Your task to perform on an android device: change text size in settings app Image 0: 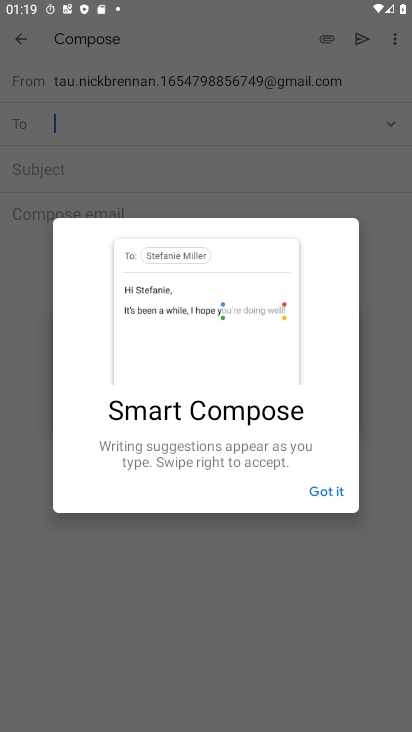
Step 0: press home button
Your task to perform on an android device: change text size in settings app Image 1: 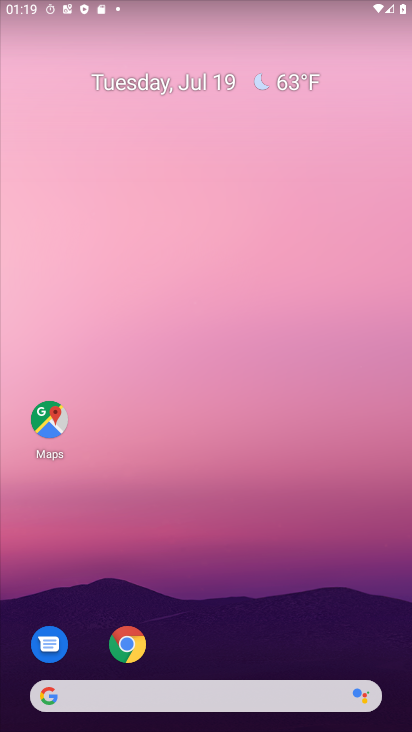
Step 1: drag from (206, 720) to (197, 271)
Your task to perform on an android device: change text size in settings app Image 2: 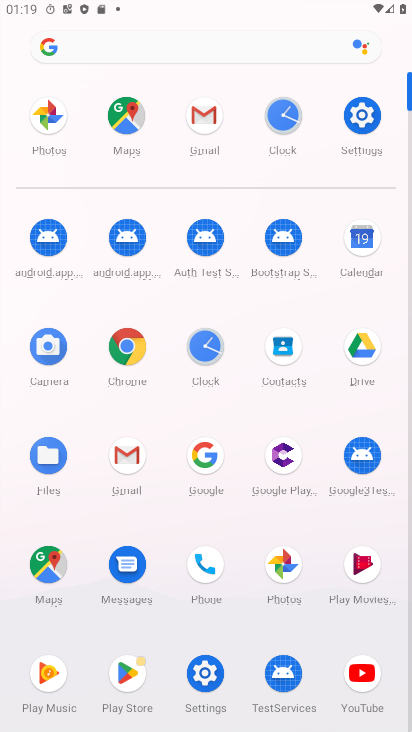
Step 2: click (361, 112)
Your task to perform on an android device: change text size in settings app Image 3: 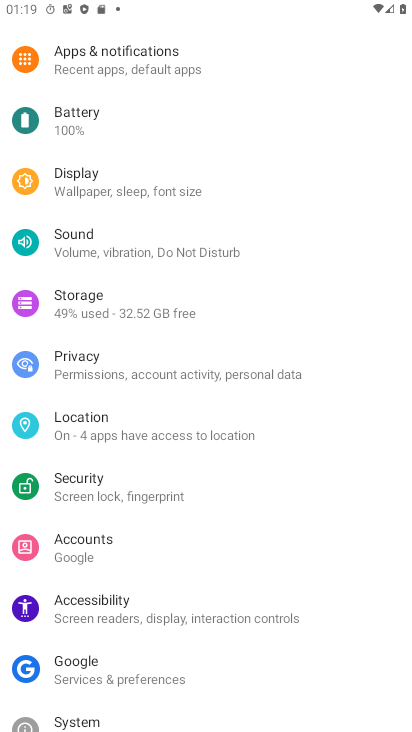
Step 3: click (103, 191)
Your task to perform on an android device: change text size in settings app Image 4: 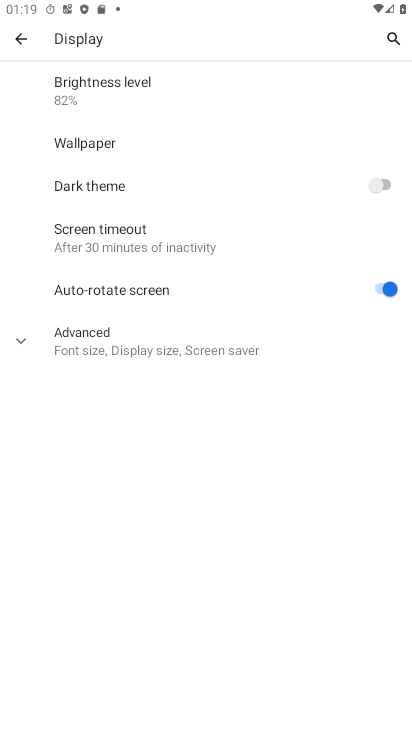
Step 4: click (90, 338)
Your task to perform on an android device: change text size in settings app Image 5: 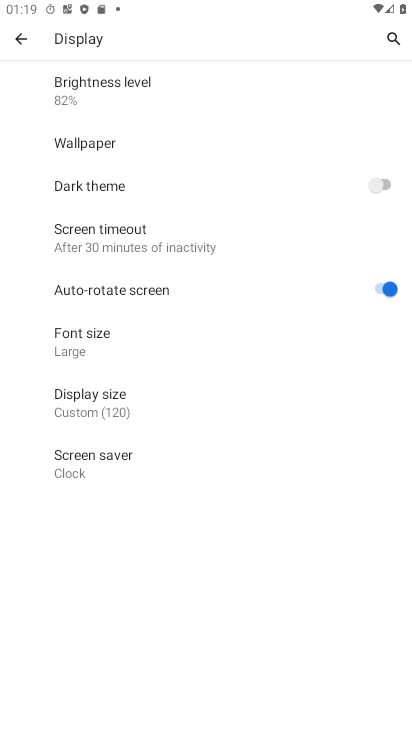
Step 5: click (74, 334)
Your task to perform on an android device: change text size in settings app Image 6: 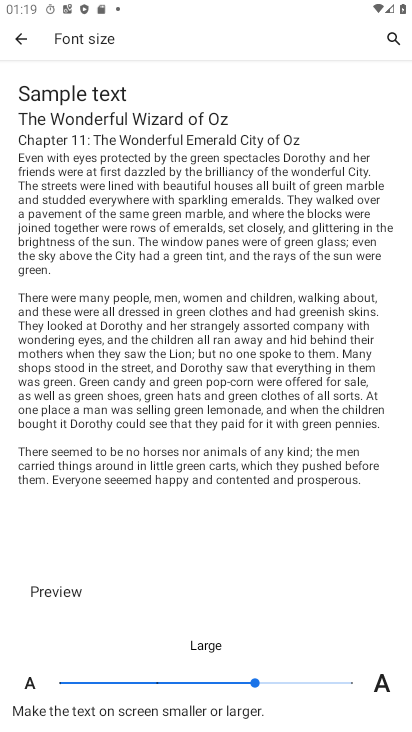
Step 6: click (351, 682)
Your task to perform on an android device: change text size in settings app Image 7: 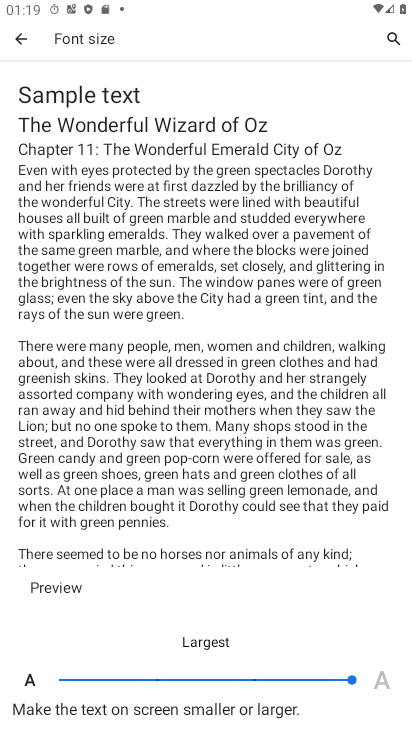
Step 7: task complete